Your task to perform on an android device: add a label to a message in the gmail app Image 0: 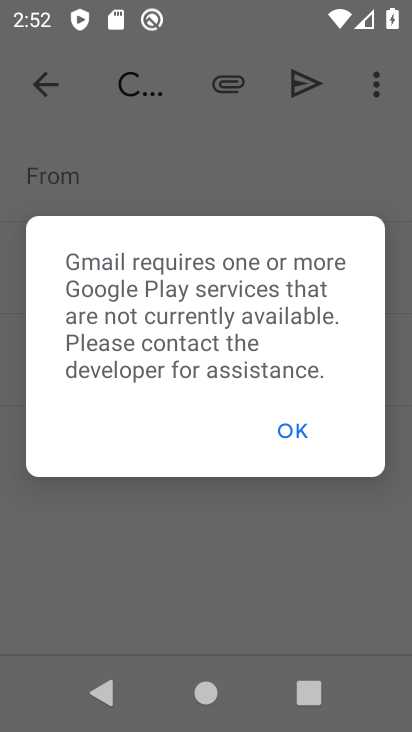
Step 0: press home button
Your task to perform on an android device: add a label to a message in the gmail app Image 1: 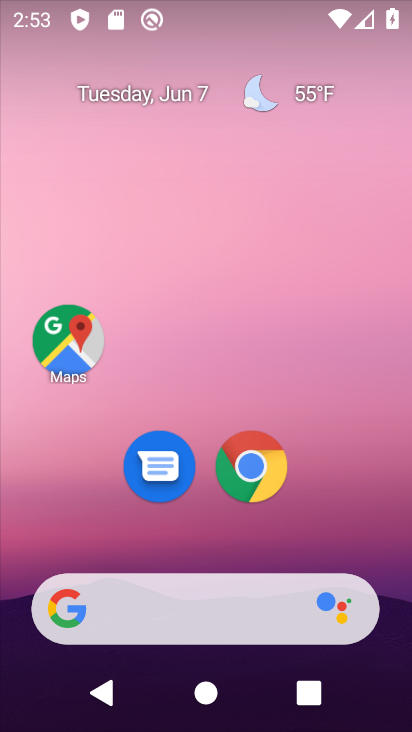
Step 1: drag from (111, 573) to (161, 165)
Your task to perform on an android device: add a label to a message in the gmail app Image 2: 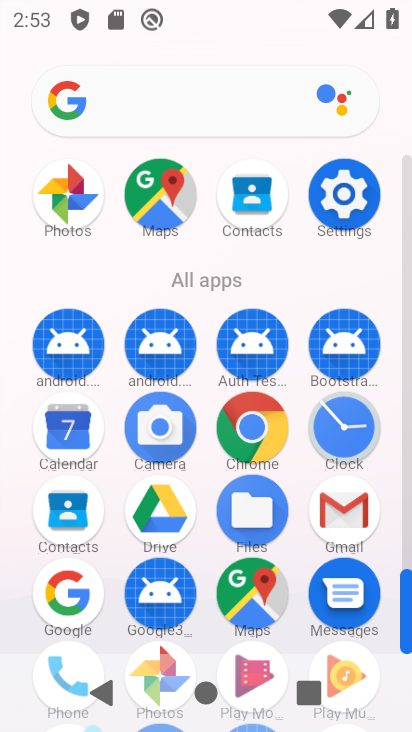
Step 2: click (39, 602)
Your task to perform on an android device: add a label to a message in the gmail app Image 3: 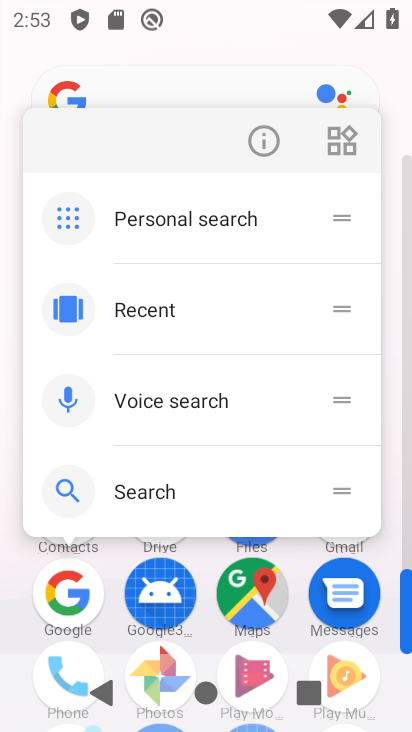
Step 3: drag from (181, 645) to (231, 277)
Your task to perform on an android device: add a label to a message in the gmail app Image 4: 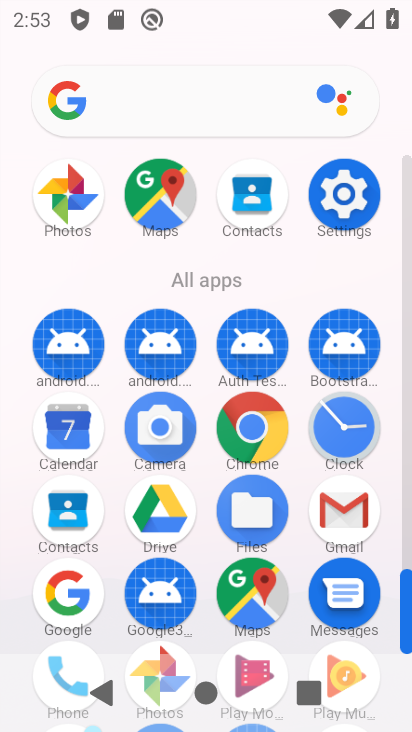
Step 4: click (347, 520)
Your task to perform on an android device: add a label to a message in the gmail app Image 5: 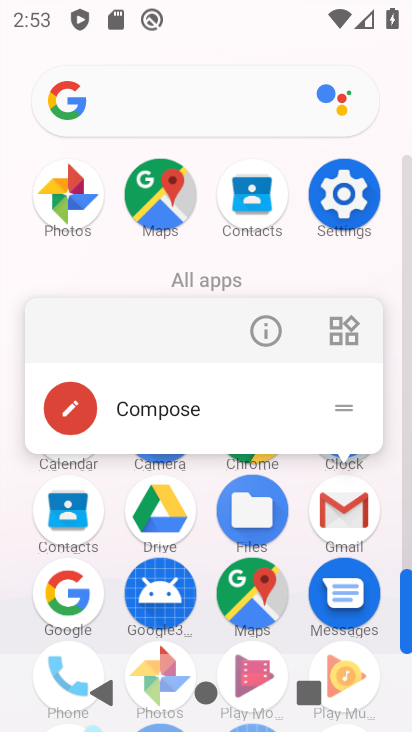
Step 5: click (329, 511)
Your task to perform on an android device: add a label to a message in the gmail app Image 6: 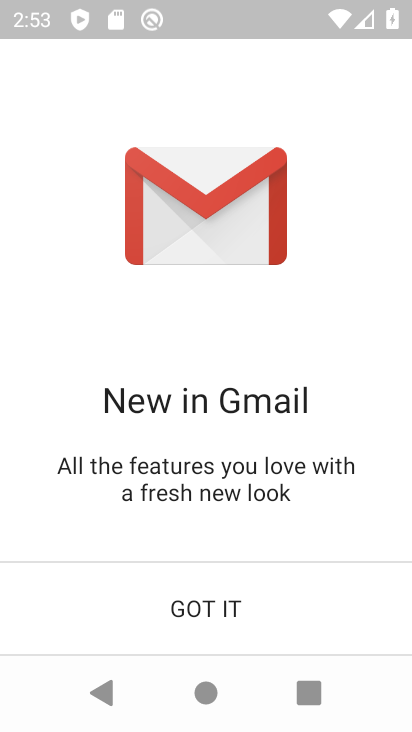
Step 6: click (215, 606)
Your task to perform on an android device: add a label to a message in the gmail app Image 7: 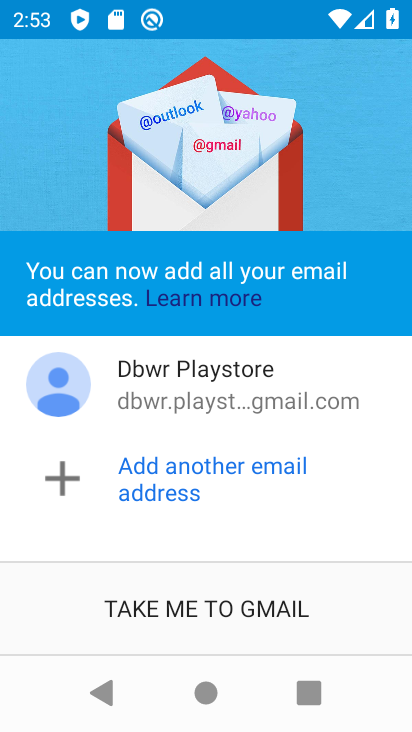
Step 7: click (214, 599)
Your task to perform on an android device: add a label to a message in the gmail app Image 8: 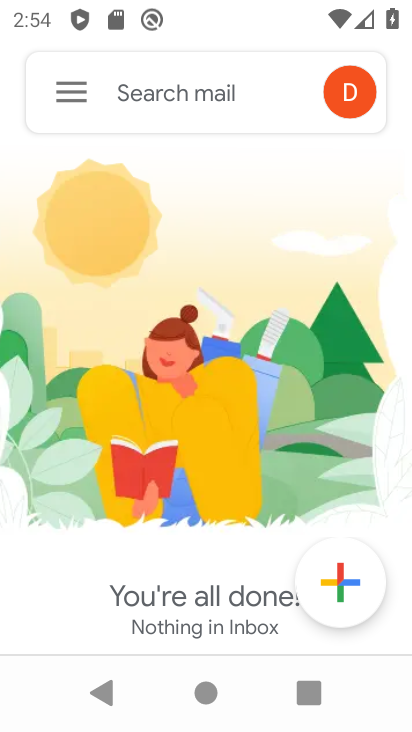
Step 8: task complete